Your task to perform on an android device: Open my contact list Image 0: 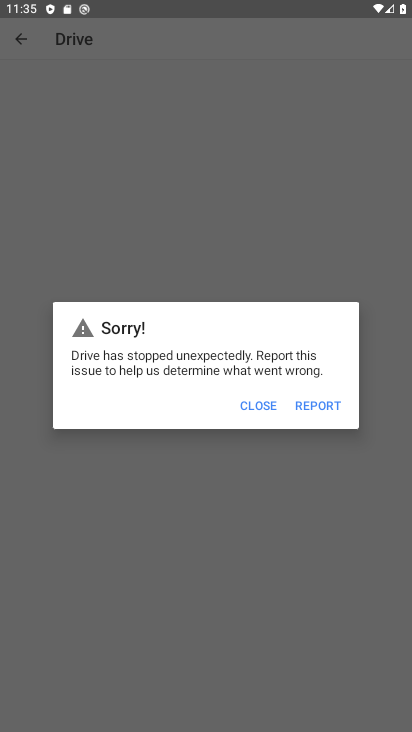
Step 0: press home button
Your task to perform on an android device: Open my contact list Image 1: 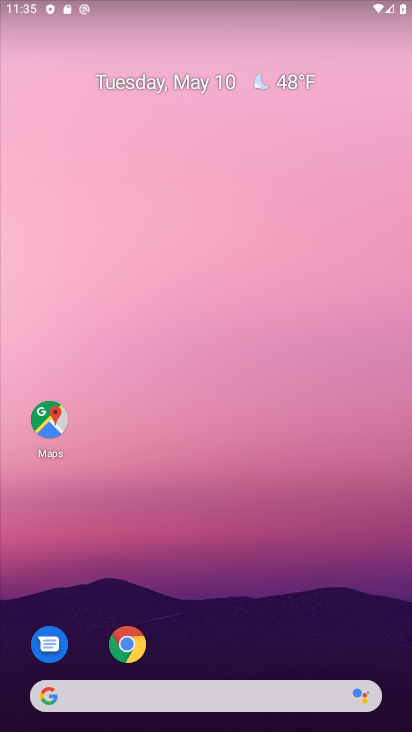
Step 1: drag from (232, 651) to (328, 52)
Your task to perform on an android device: Open my contact list Image 2: 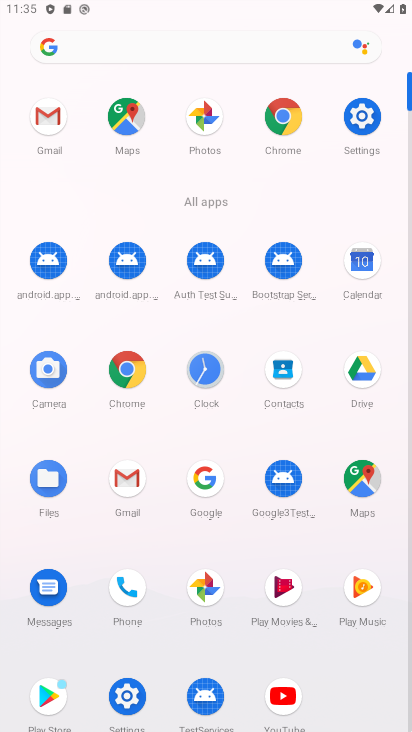
Step 2: click (293, 387)
Your task to perform on an android device: Open my contact list Image 3: 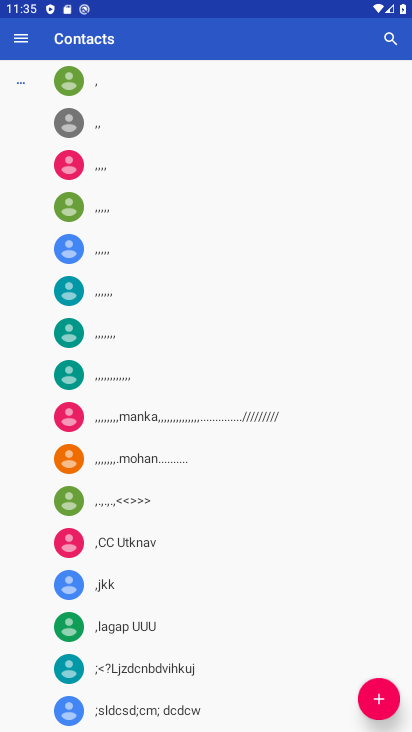
Step 3: task complete